Your task to perform on an android device: Open internet settings Image 0: 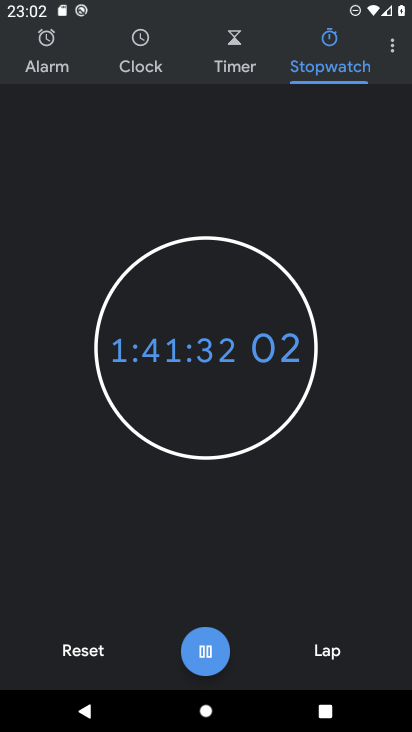
Step 0: press home button
Your task to perform on an android device: Open internet settings Image 1: 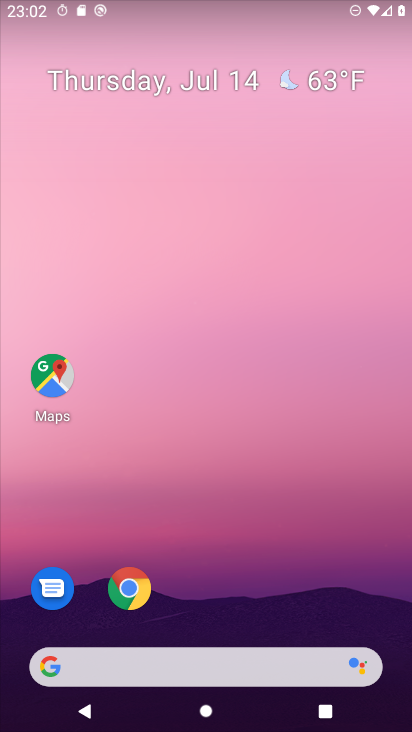
Step 1: drag from (367, 547) to (377, 59)
Your task to perform on an android device: Open internet settings Image 2: 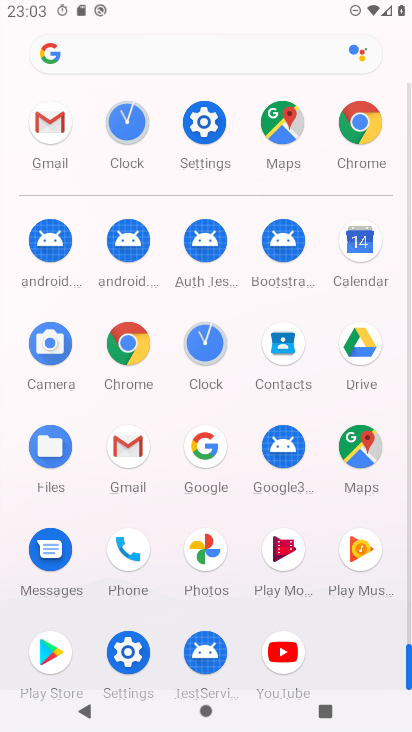
Step 2: click (206, 125)
Your task to perform on an android device: Open internet settings Image 3: 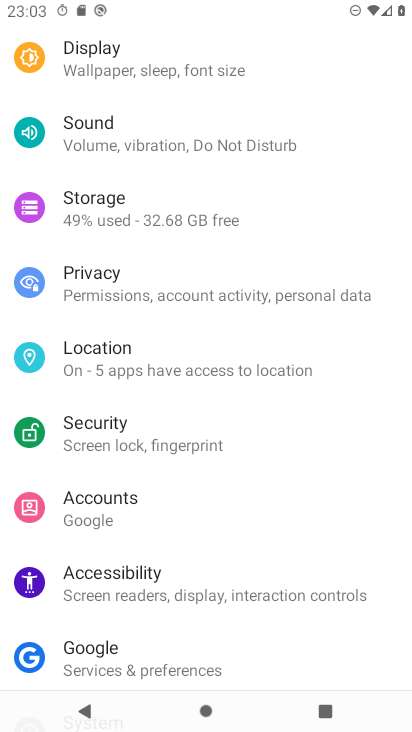
Step 3: drag from (392, 516) to (371, 391)
Your task to perform on an android device: Open internet settings Image 4: 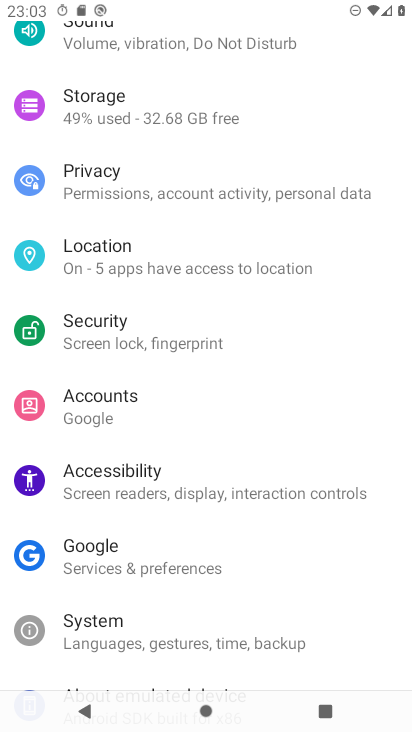
Step 4: drag from (378, 467) to (378, 369)
Your task to perform on an android device: Open internet settings Image 5: 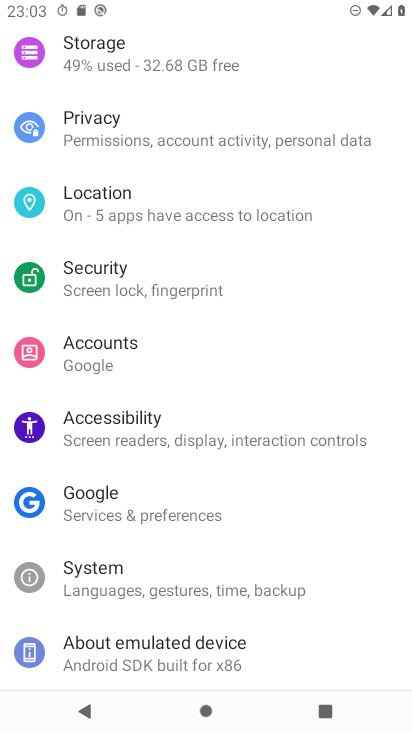
Step 5: drag from (374, 339) to (377, 430)
Your task to perform on an android device: Open internet settings Image 6: 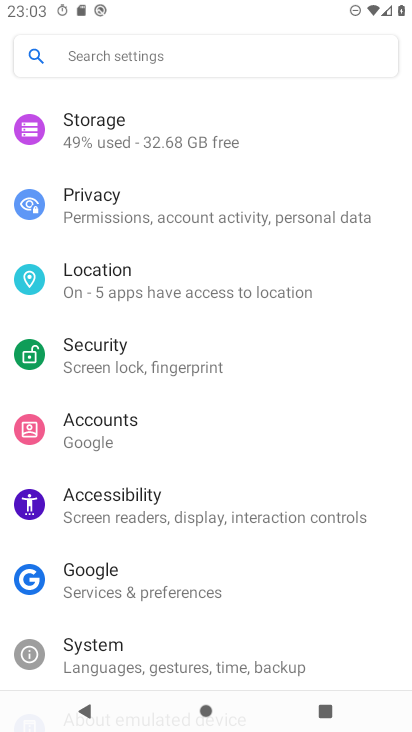
Step 6: drag from (372, 347) to (371, 471)
Your task to perform on an android device: Open internet settings Image 7: 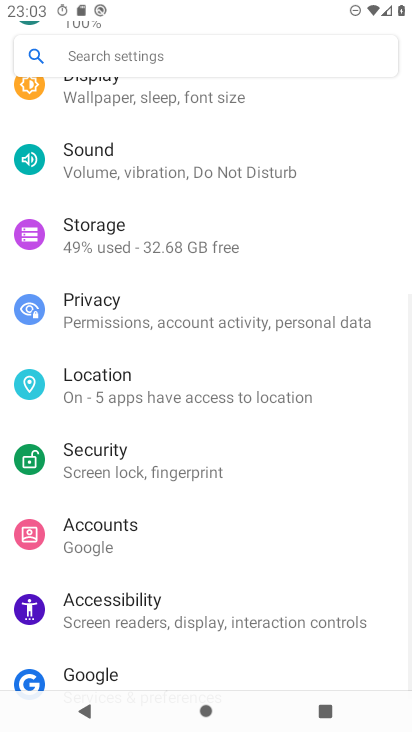
Step 7: drag from (370, 376) to (374, 479)
Your task to perform on an android device: Open internet settings Image 8: 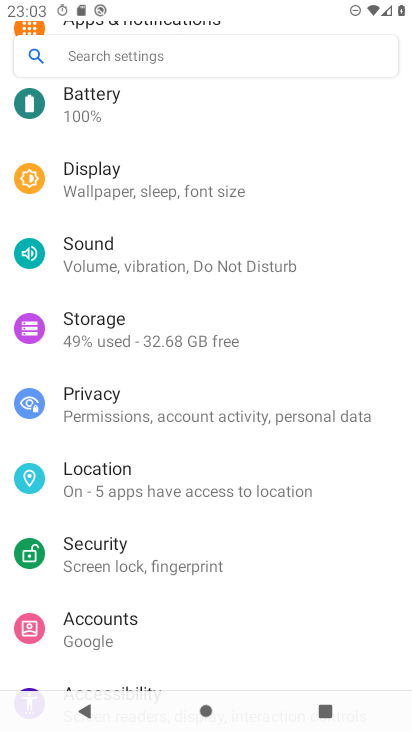
Step 8: drag from (376, 435) to (385, 530)
Your task to perform on an android device: Open internet settings Image 9: 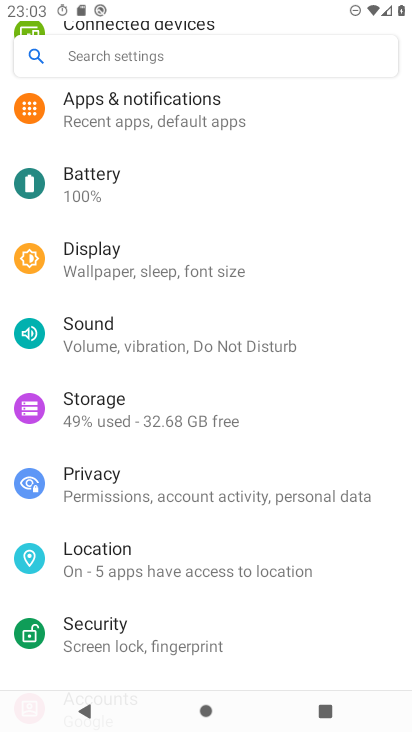
Step 9: drag from (361, 342) to (372, 447)
Your task to perform on an android device: Open internet settings Image 10: 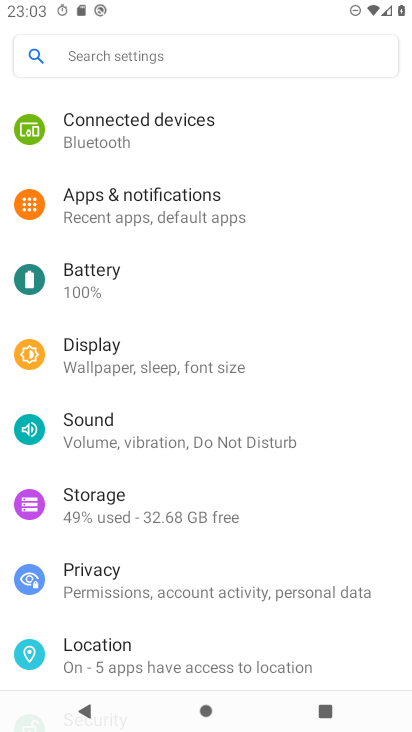
Step 10: drag from (357, 304) to (366, 386)
Your task to perform on an android device: Open internet settings Image 11: 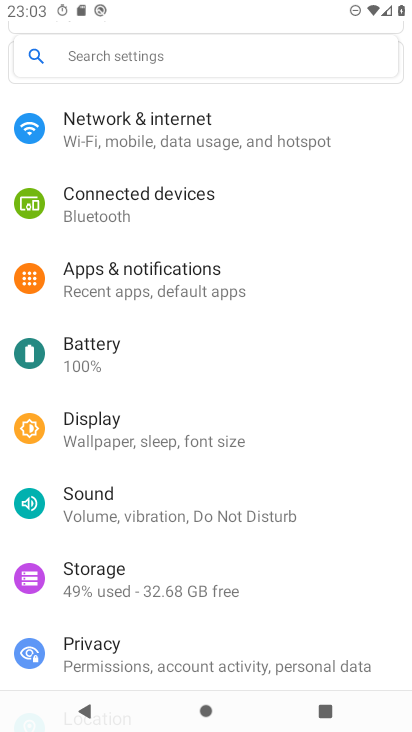
Step 11: drag from (359, 295) to (366, 394)
Your task to perform on an android device: Open internet settings Image 12: 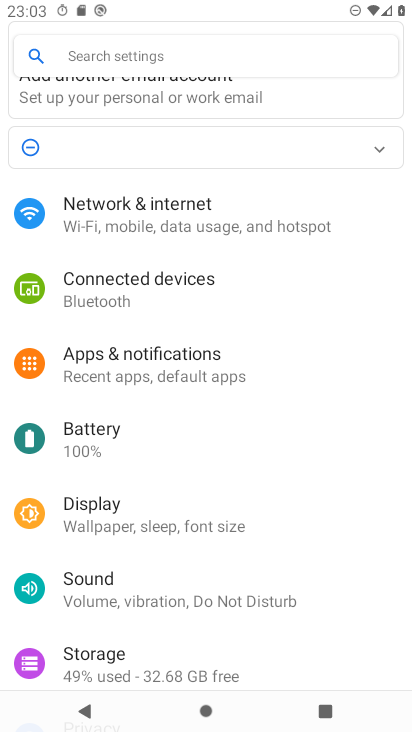
Step 12: drag from (368, 338) to (370, 430)
Your task to perform on an android device: Open internet settings Image 13: 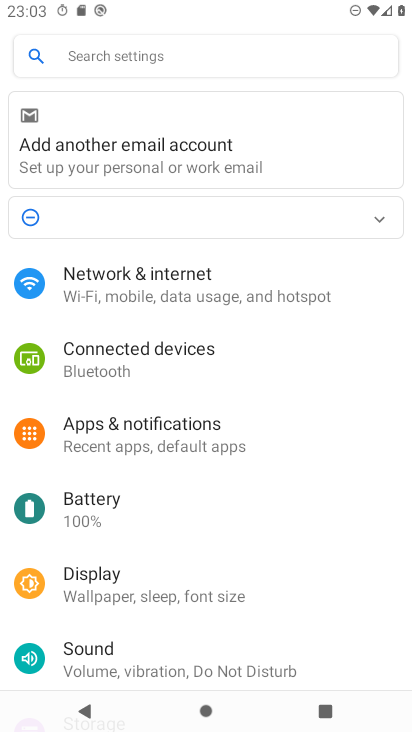
Step 13: click (315, 301)
Your task to perform on an android device: Open internet settings Image 14: 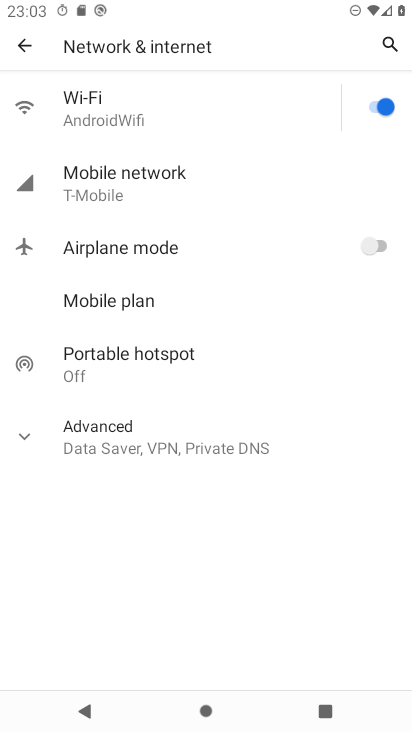
Step 14: task complete